Your task to perform on an android device: turn on showing notifications on the lock screen Image 0: 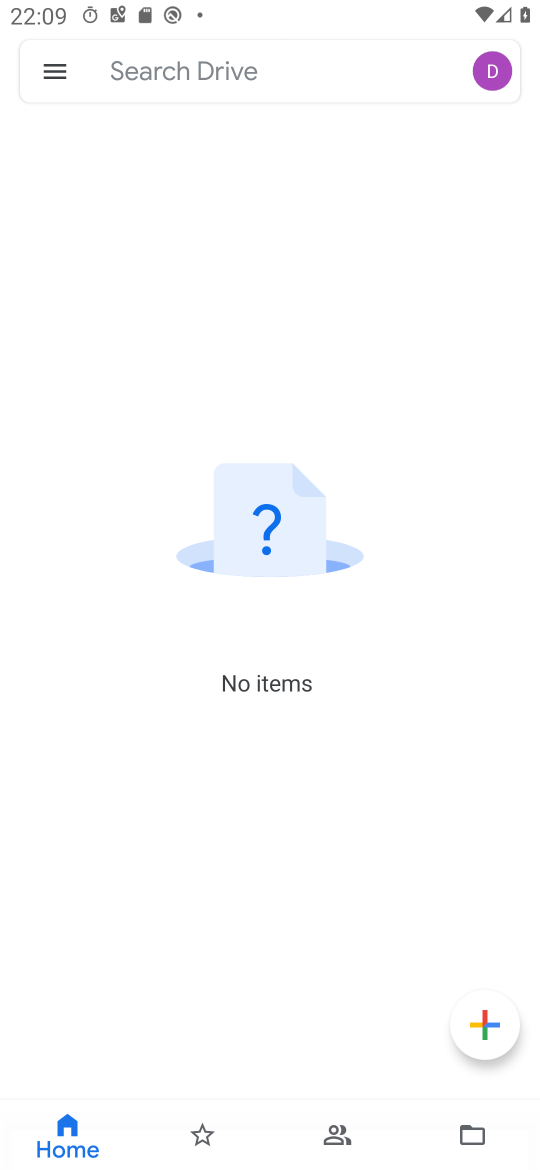
Step 0: press home button
Your task to perform on an android device: turn on showing notifications on the lock screen Image 1: 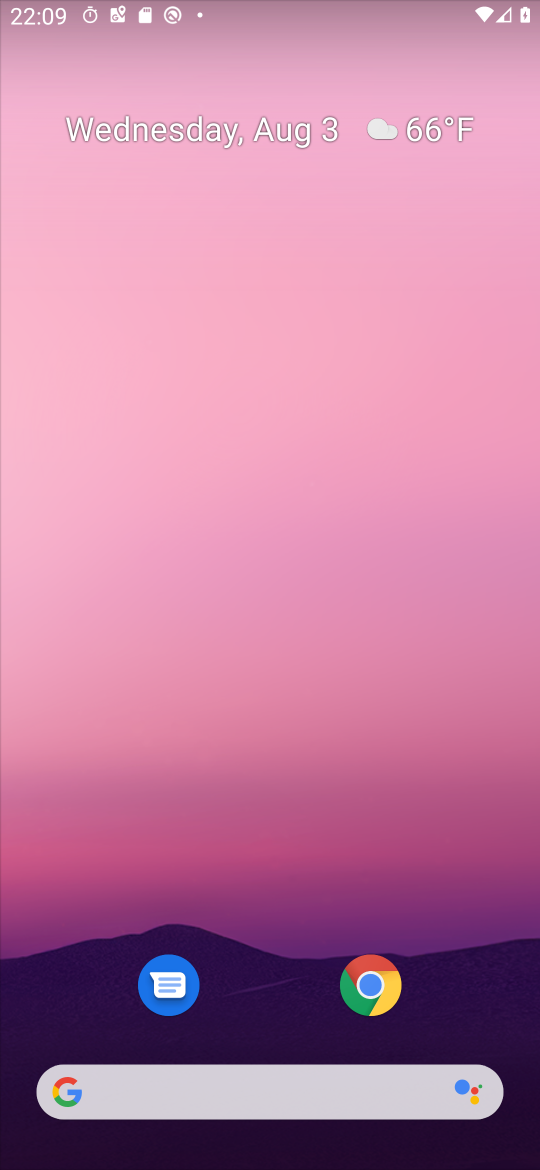
Step 1: drag from (234, 986) to (262, 192)
Your task to perform on an android device: turn on showing notifications on the lock screen Image 2: 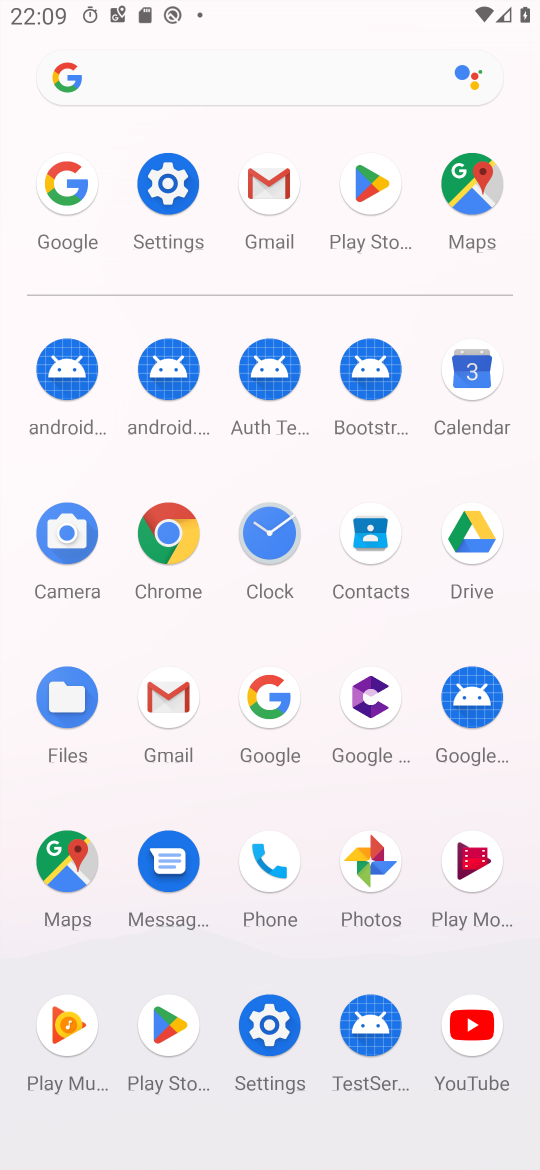
Step 2: click (189, 192)
Your task to perform on an android device: turn on showing notifications on the lock screen Image 3: 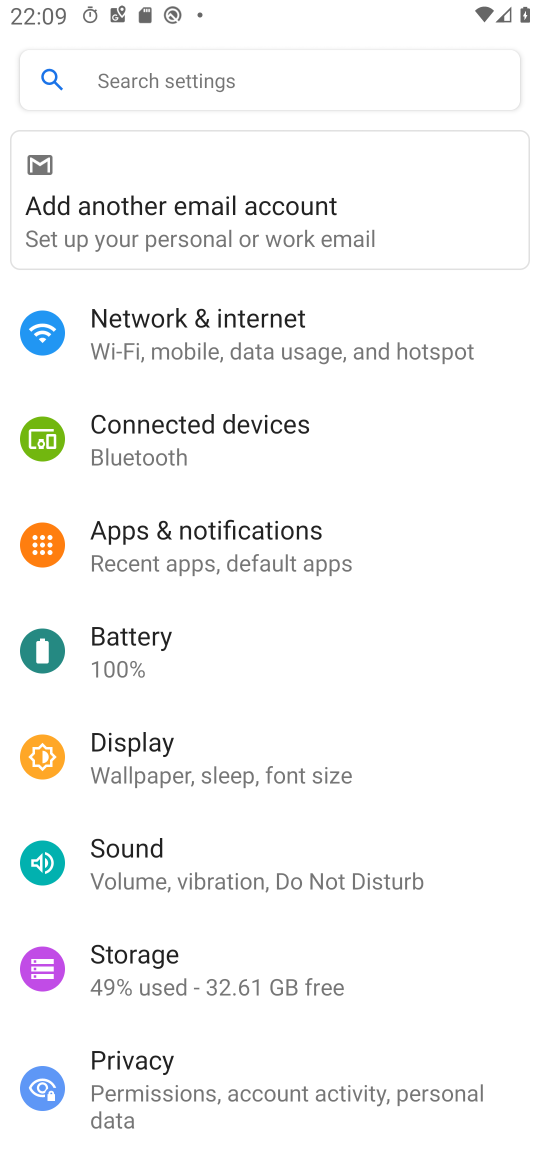
Step 3: click (222, 550)
Your task to perform on an android device: turn on showing notifications on the lock screen Image 4: 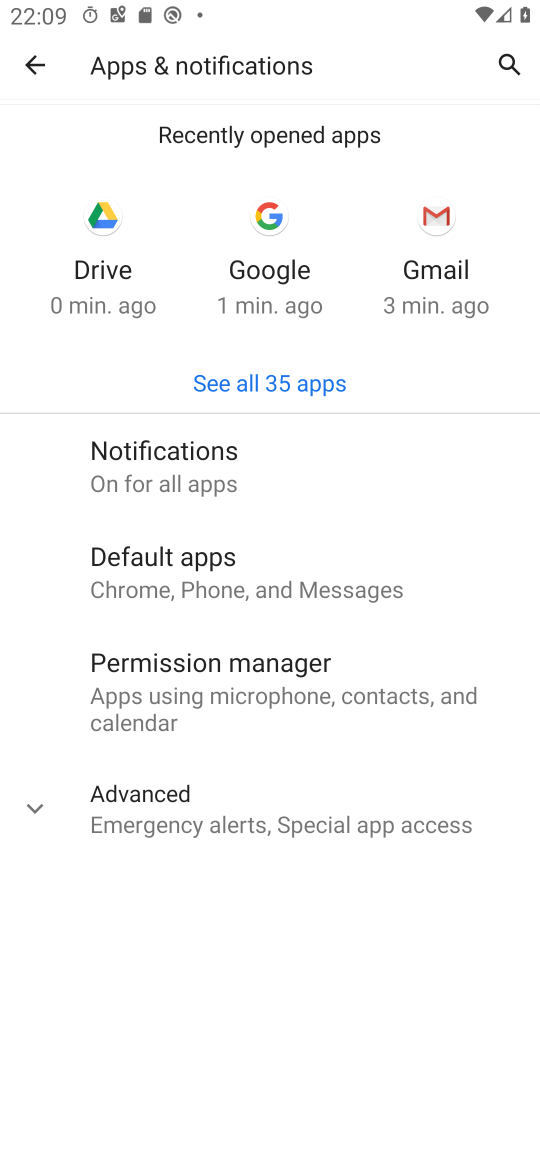
Step 4: click (216, 497)
Your task to perform on an android device: turn on showing notifications on the lock screen Image 5: 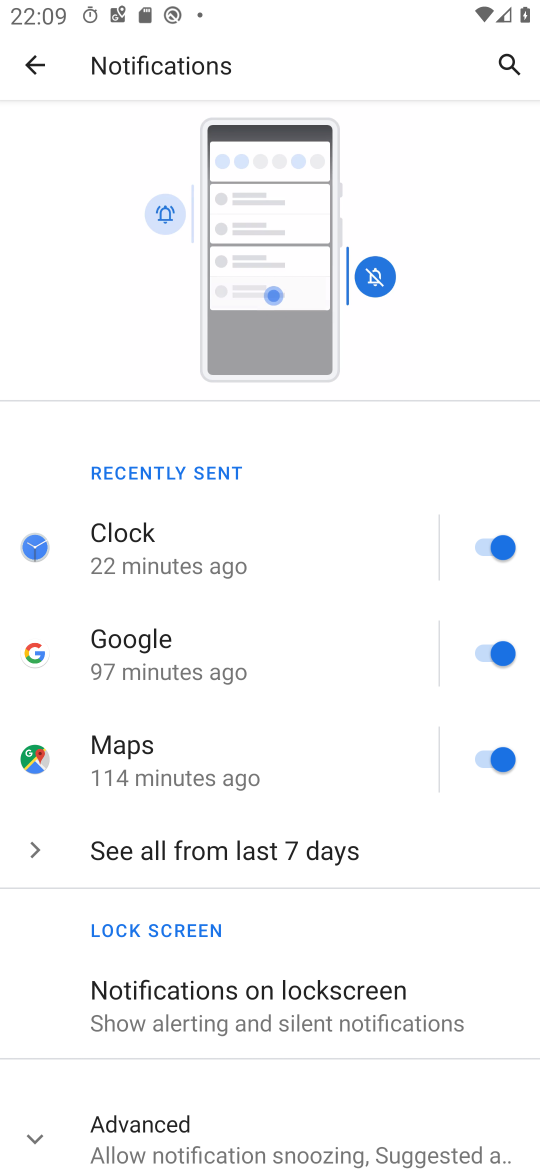
Step 5: click (285, 978)
Your task to perform on an android device: turn on showing notifications on the lock screen Image 6: 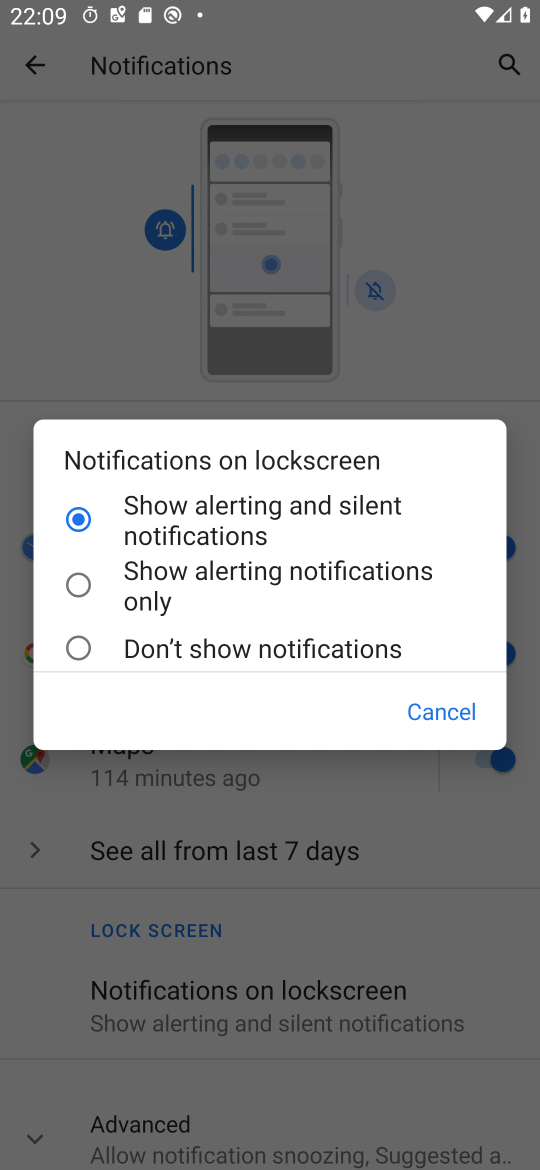
Step 6: task complete